Your task to perform on an android device: change text size in settings app Image 0: 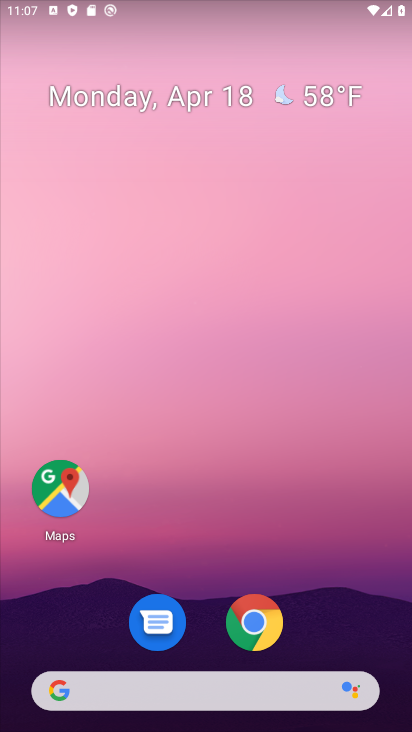
Step 0: drag from (328, 589) to (299, 218)
Your task to perform on an android device: change text size in settings app Image 1: 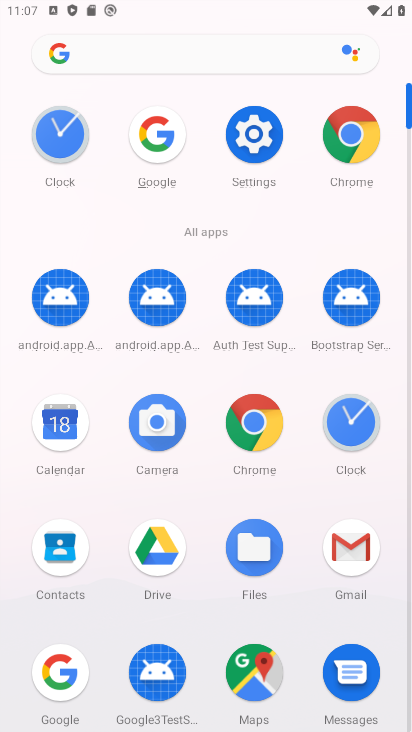
Step 1: click (262, 128)
Your task to perform on an android device: change text size in settings app Image 2: 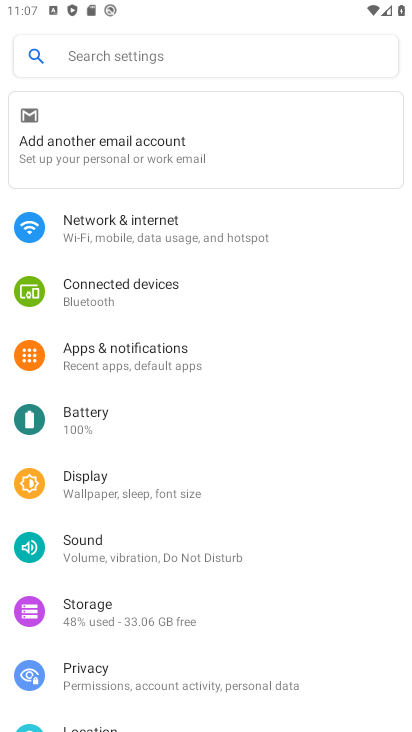
Step 2: drag from (138, 608) to (128, 437)
Your task to perform on an android device: change text size in settings app Image 3: 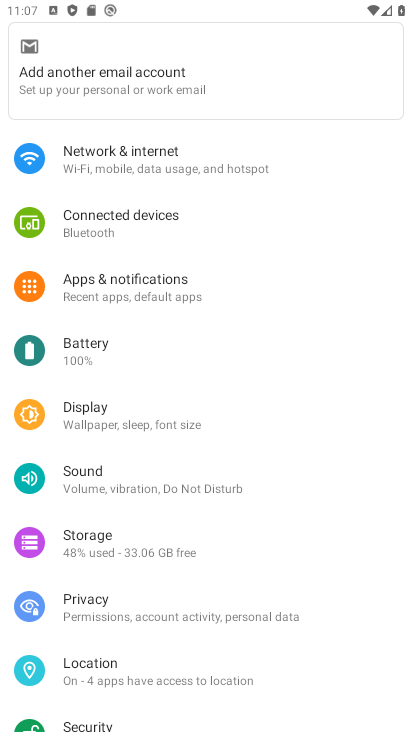
Step 3: click (117, 409)
Your task to perform on an android device: change text size in settings app Image 4: 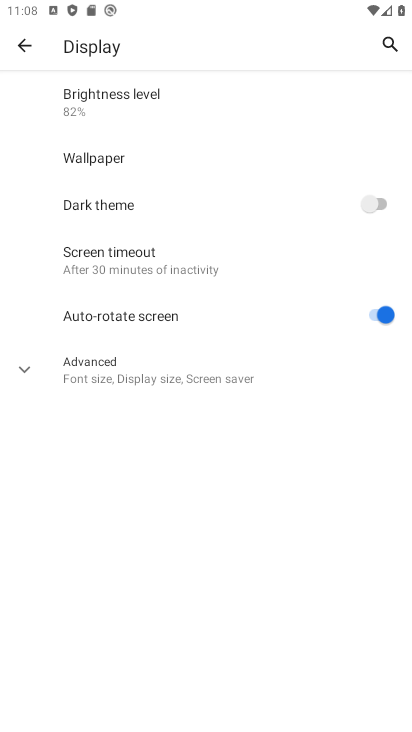
Step 4: click (20, 58)
Your task to perform on an android device: change text size in settings app Image 5: 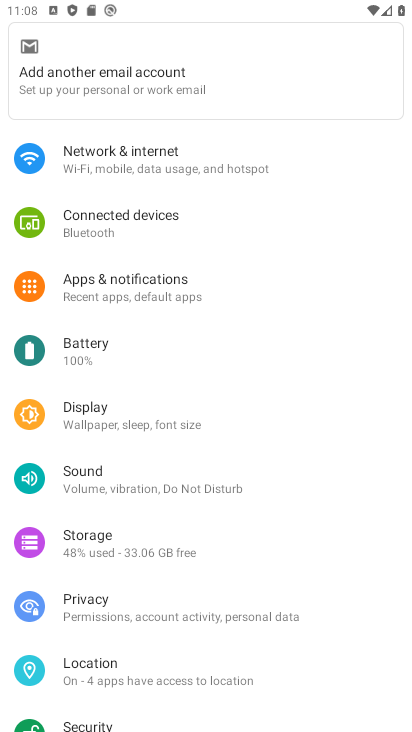
Step 5: click (184, 421)
Your task to perform on an android device: change text size in settings app Image 6: 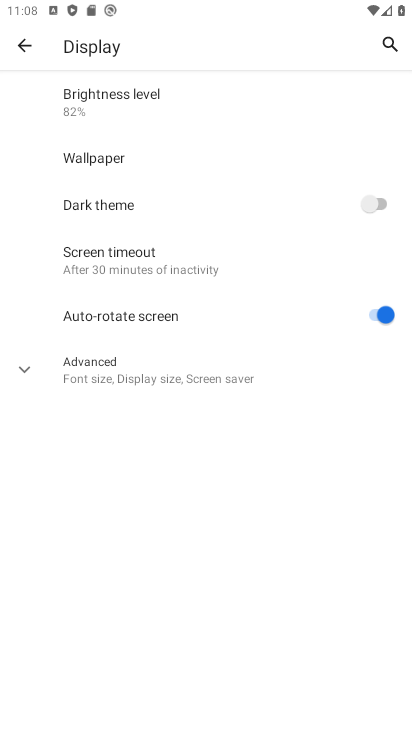
Step 6: click (165, 366)
Your task to perform on an android device: change text size in settings app Image 7: 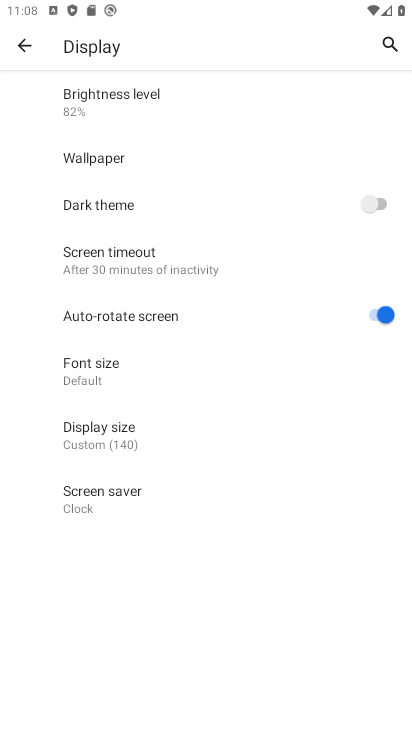
Step 7: click (119, 366)
Your task to perform on an android device: change text size in settings app Image 8: 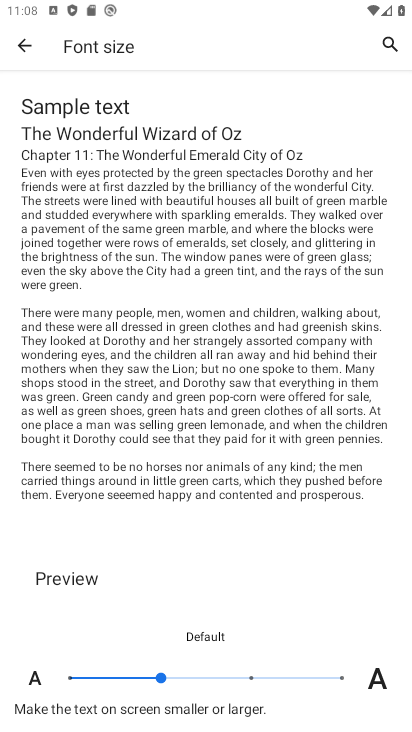
Step 8: click (247, 679)
Your task to perform on an android device: change text size in settings app Image 9: 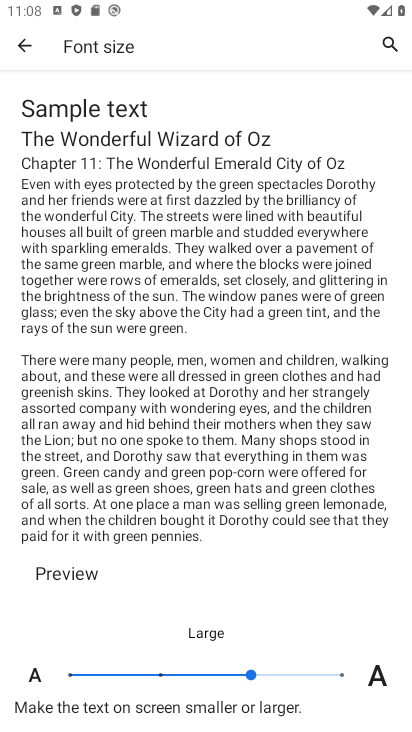
Step 9: task complete